Your task to perform on an android device: Check the weather Image 0: 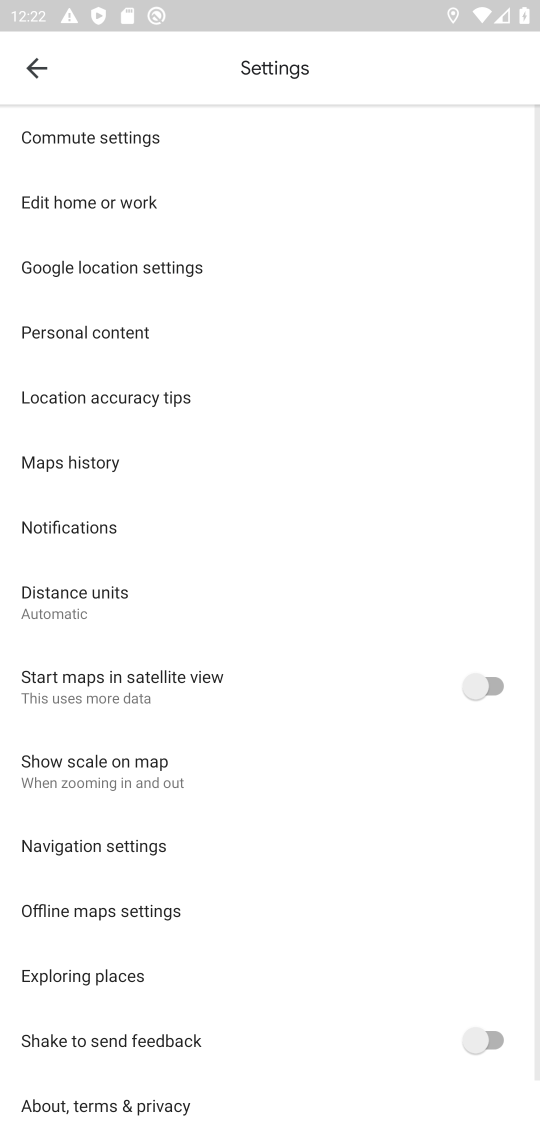
Step 0: press home button
Your task to perform on an android device: Check the weather Image 1: 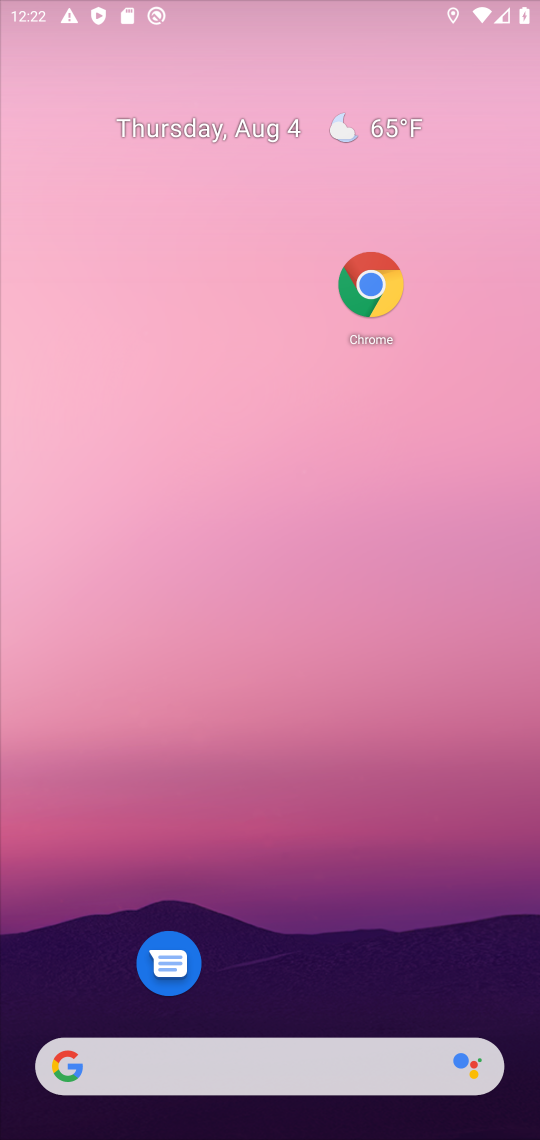
Step 1: drag from (245, 1008) to (229, 345)
Your task to perform on an android device: Check the weather Image 2: 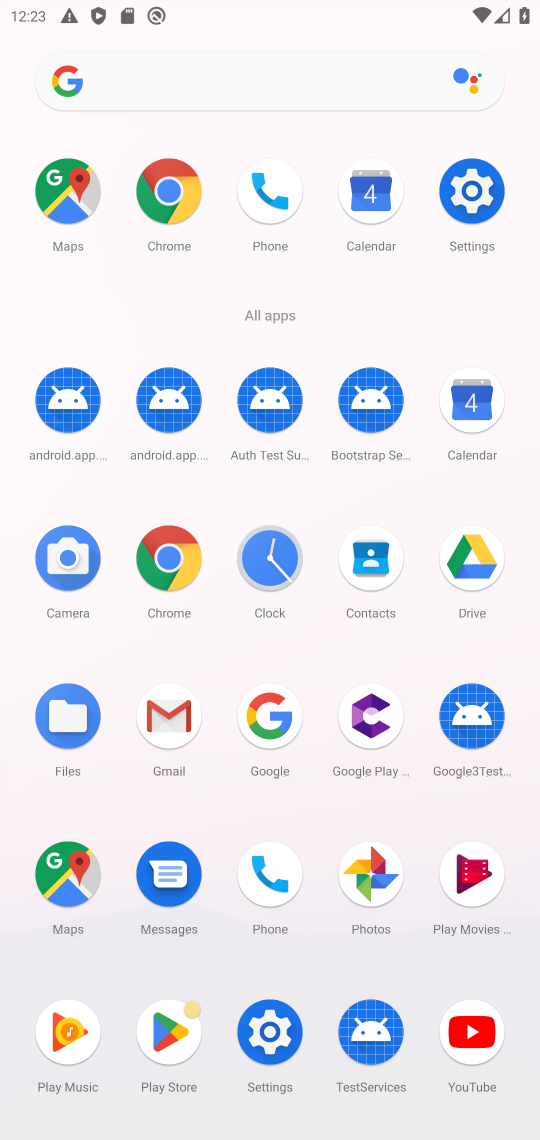
Step 2: click (166, 205)
Your task to perform on an android device: Check the weather Image 3: 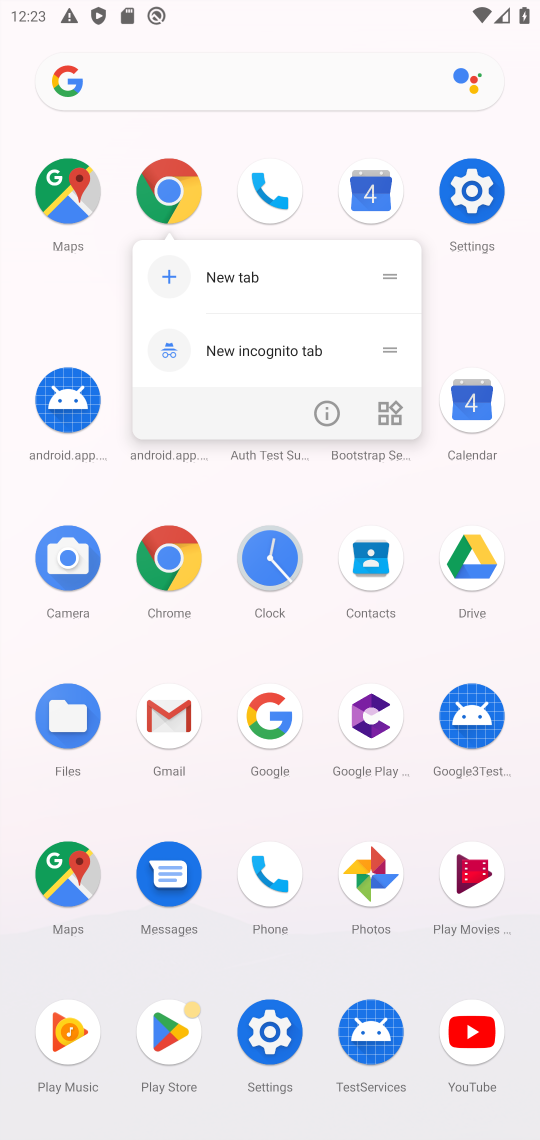
Step 3: click (174, 222)
Your task to perform on an android device: Check the weather Image 4: 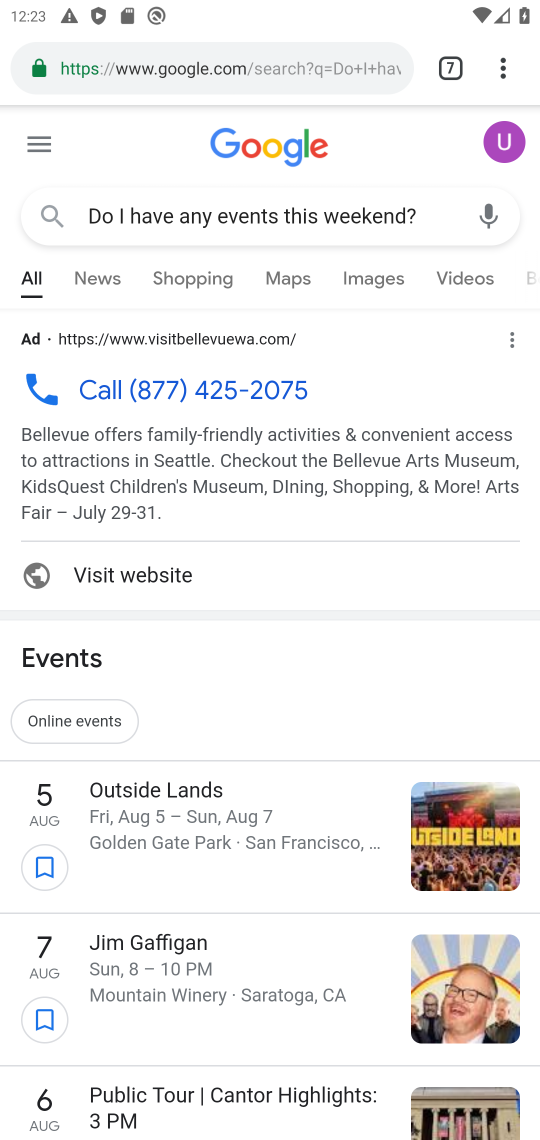
Step 4: click (513, 77)
Your task to perform on an android device: Check the weather Image 5: 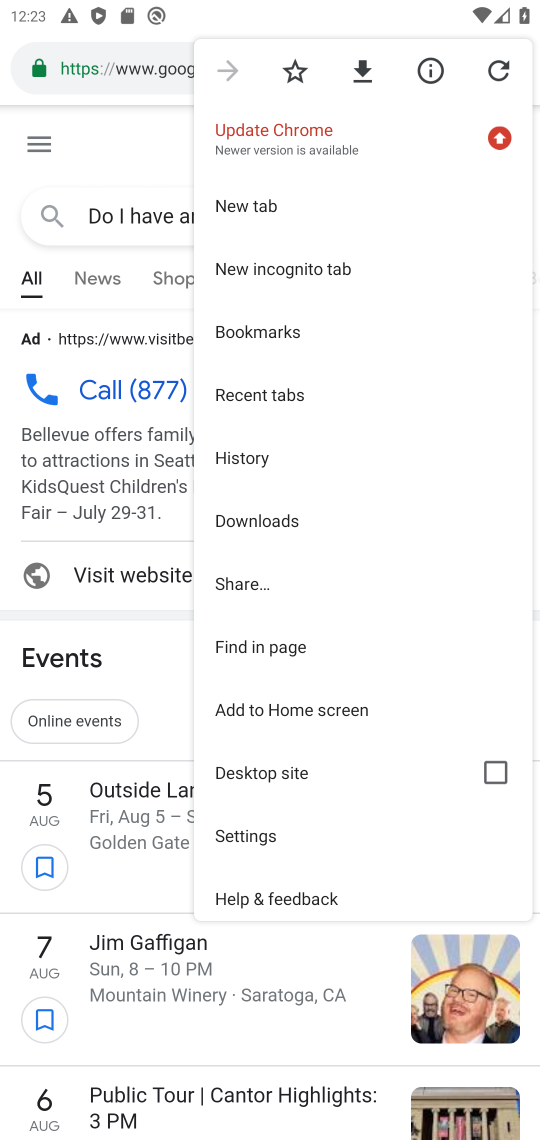
Step 5: click (302, 197)
Your task to perform on an android device: Check the weather Image 6: 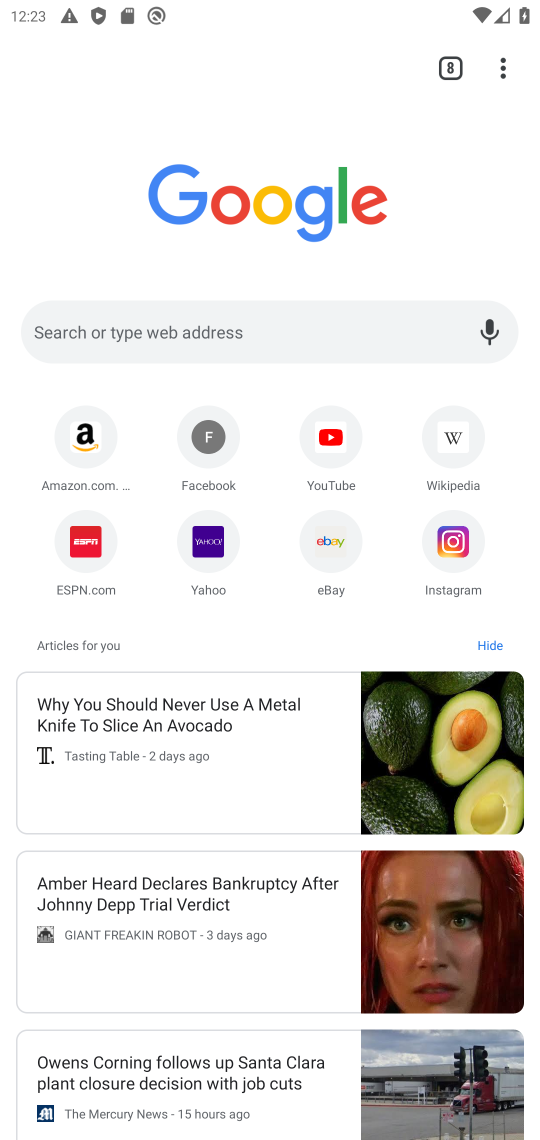
Step 6: click (320, 317)
Your task to perform on an android device: Check the weather Image 7: 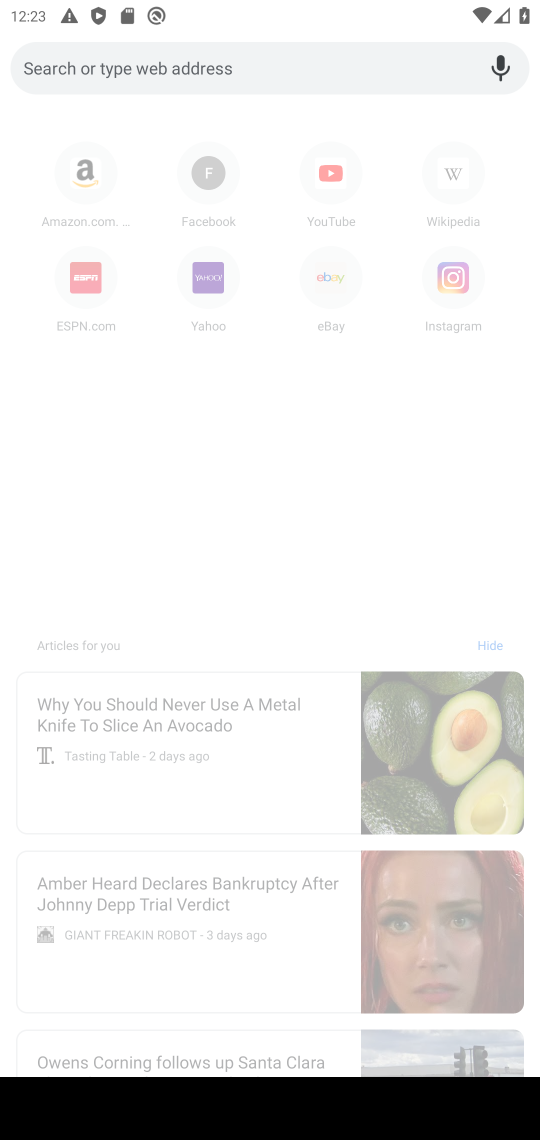
Step 7: type "Check the weather "
Your task to perform on an android device: Check the weather Image 8: 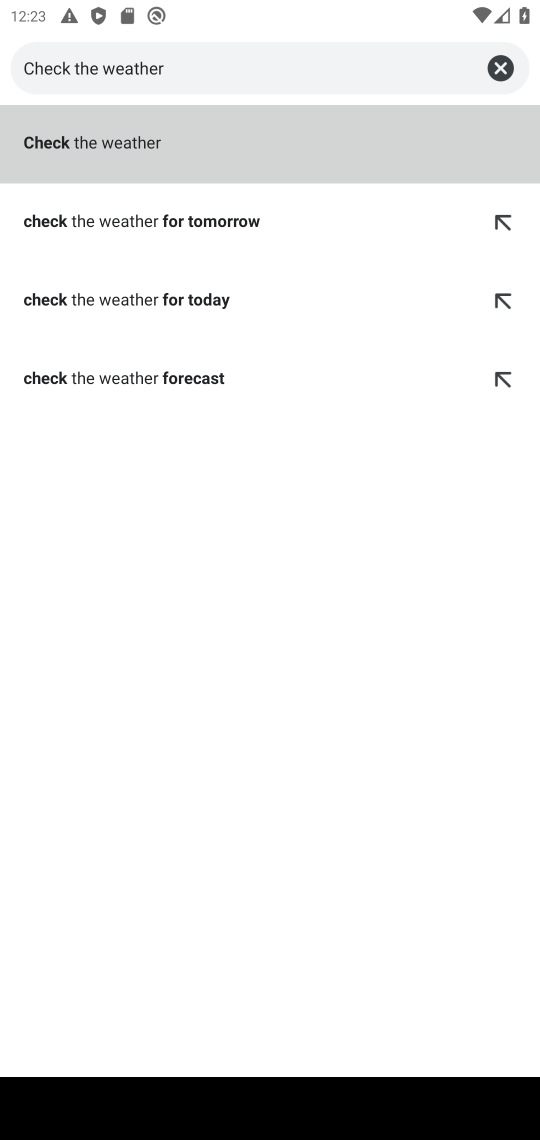
Step 8: click (362, 164)
Your task to perform on an android device: Check the weather Image 9: 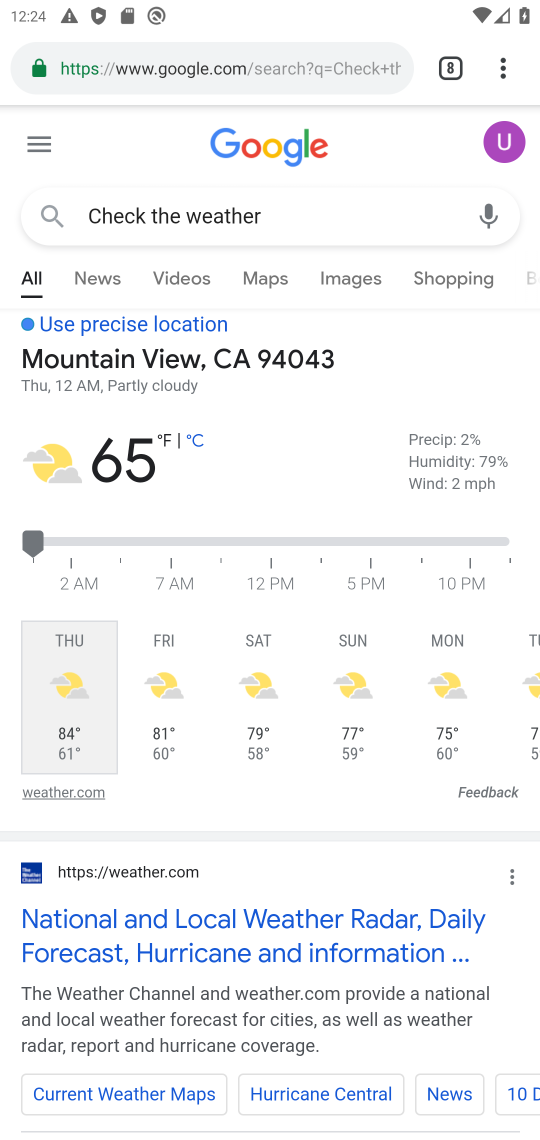
Step 9: task complete